Your task to perform on an android device: View the shopping cart on target. Image 0: 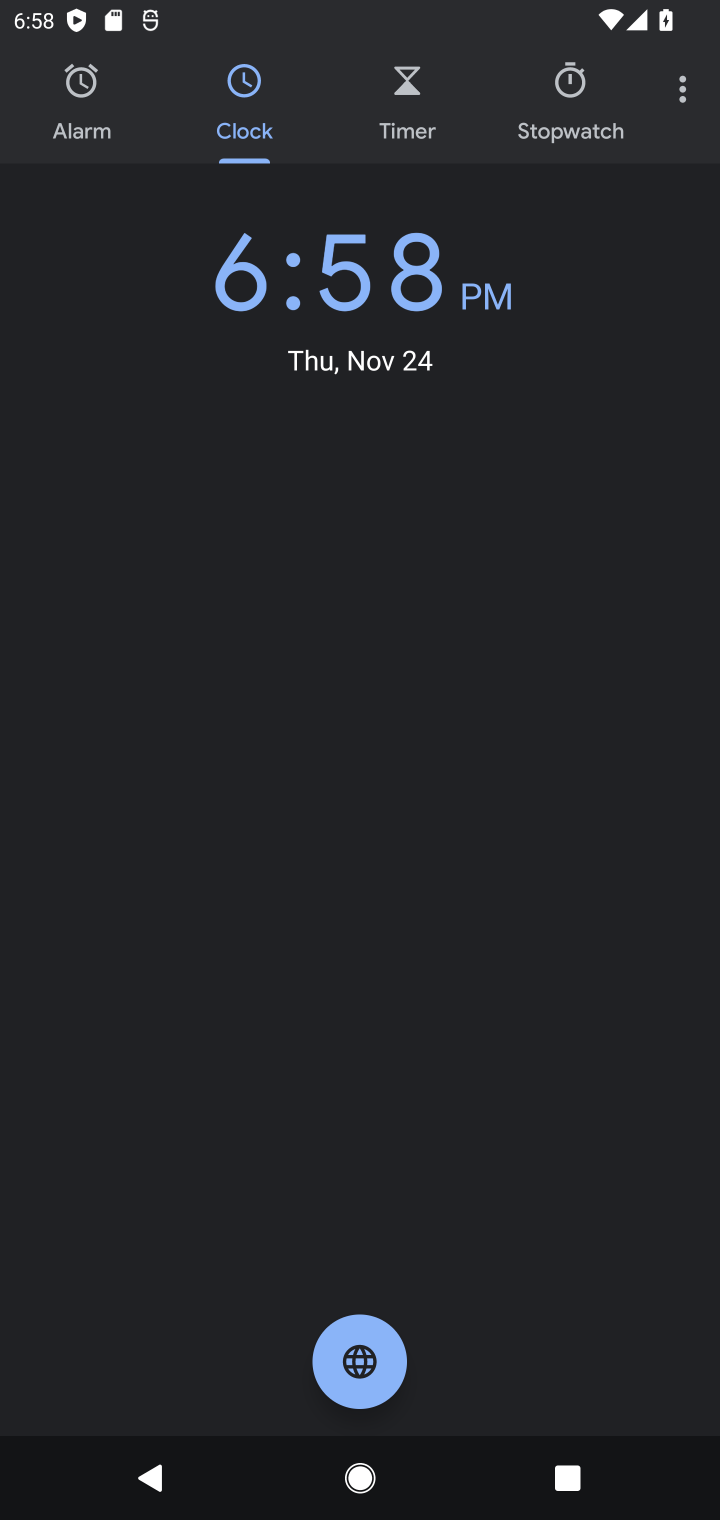
Step 0: press home button
Your task to perform on an android device: View the shopping cart on target. Image 1: 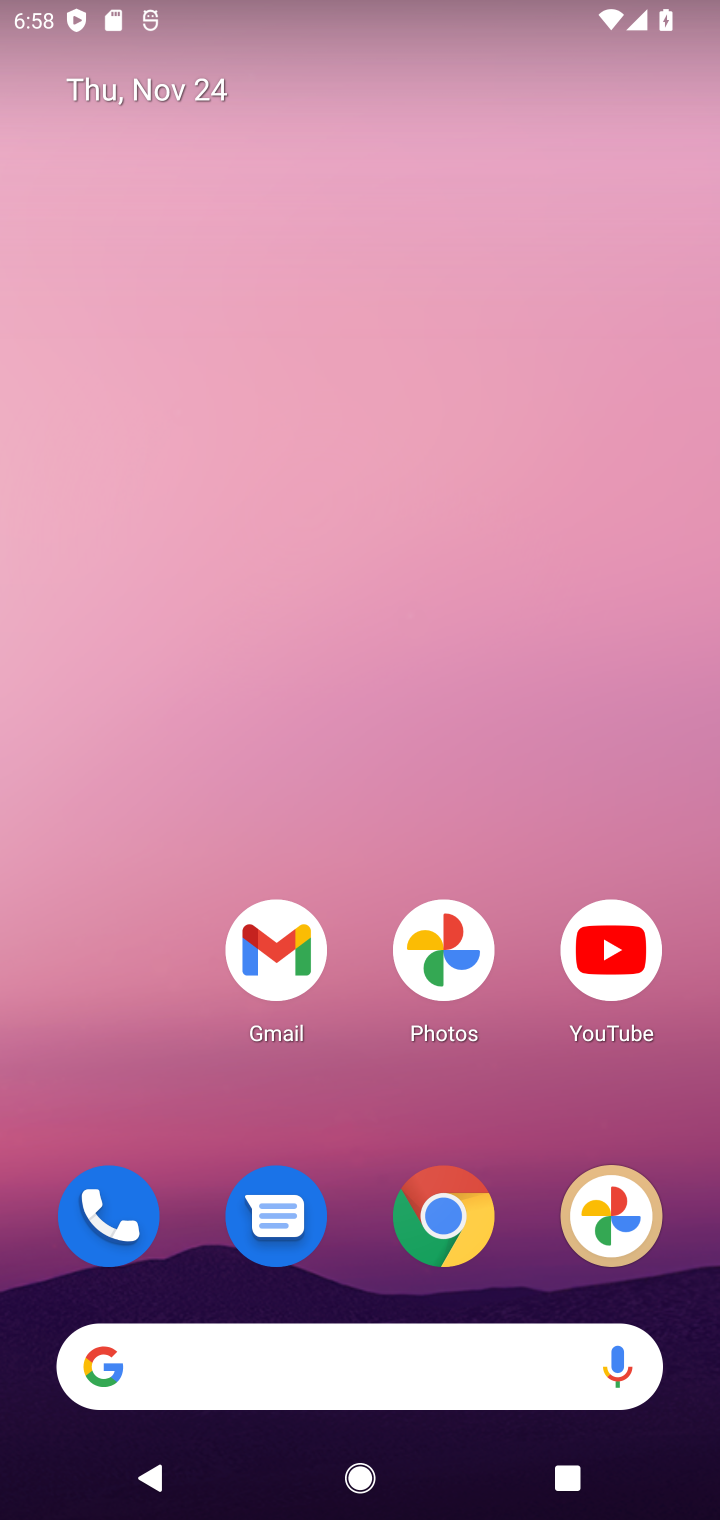
Step 1: click (440, 1224)
Your task to perform on an android device: View the shopping cart on target. Image 2: 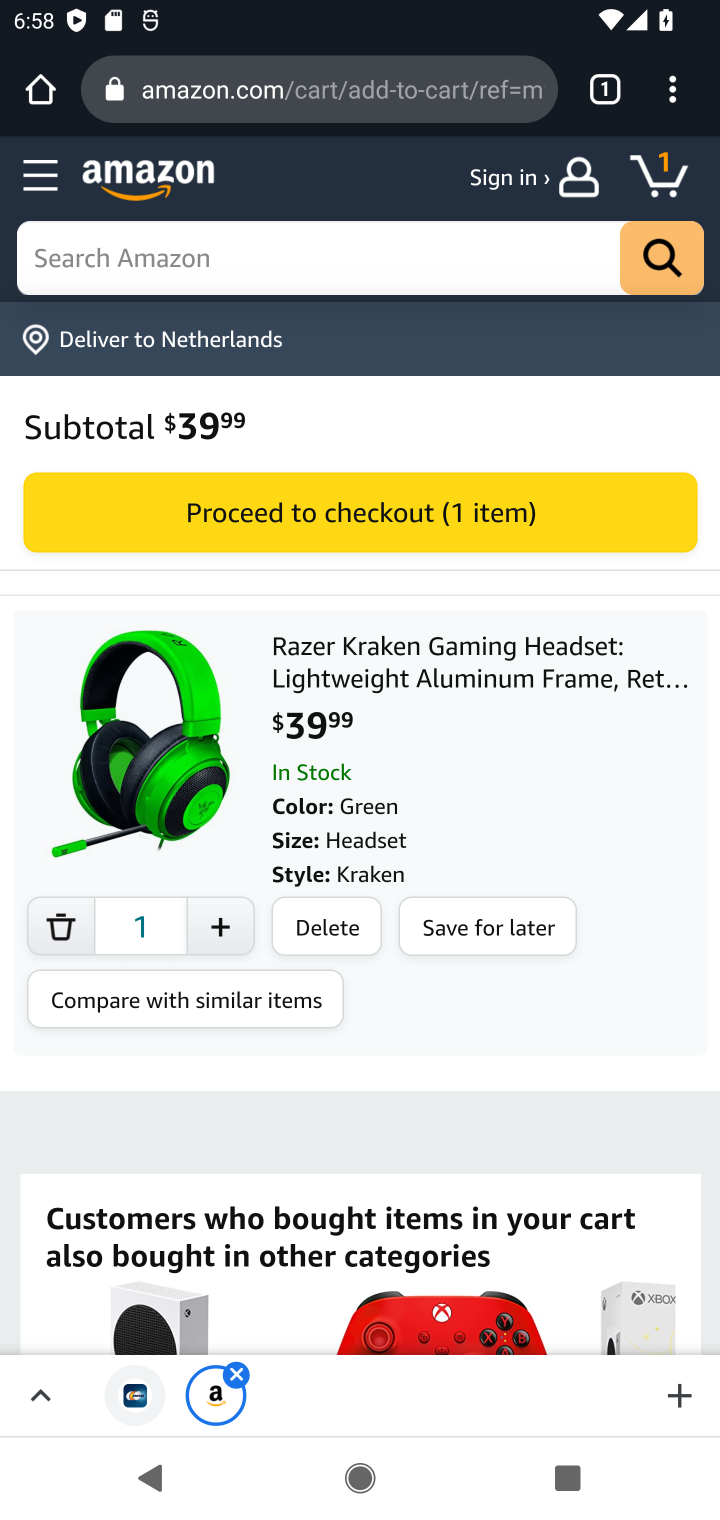
Step 2: click (356, 87)
Your task to perform on an android device: View the shopping cart on target. Image 3: 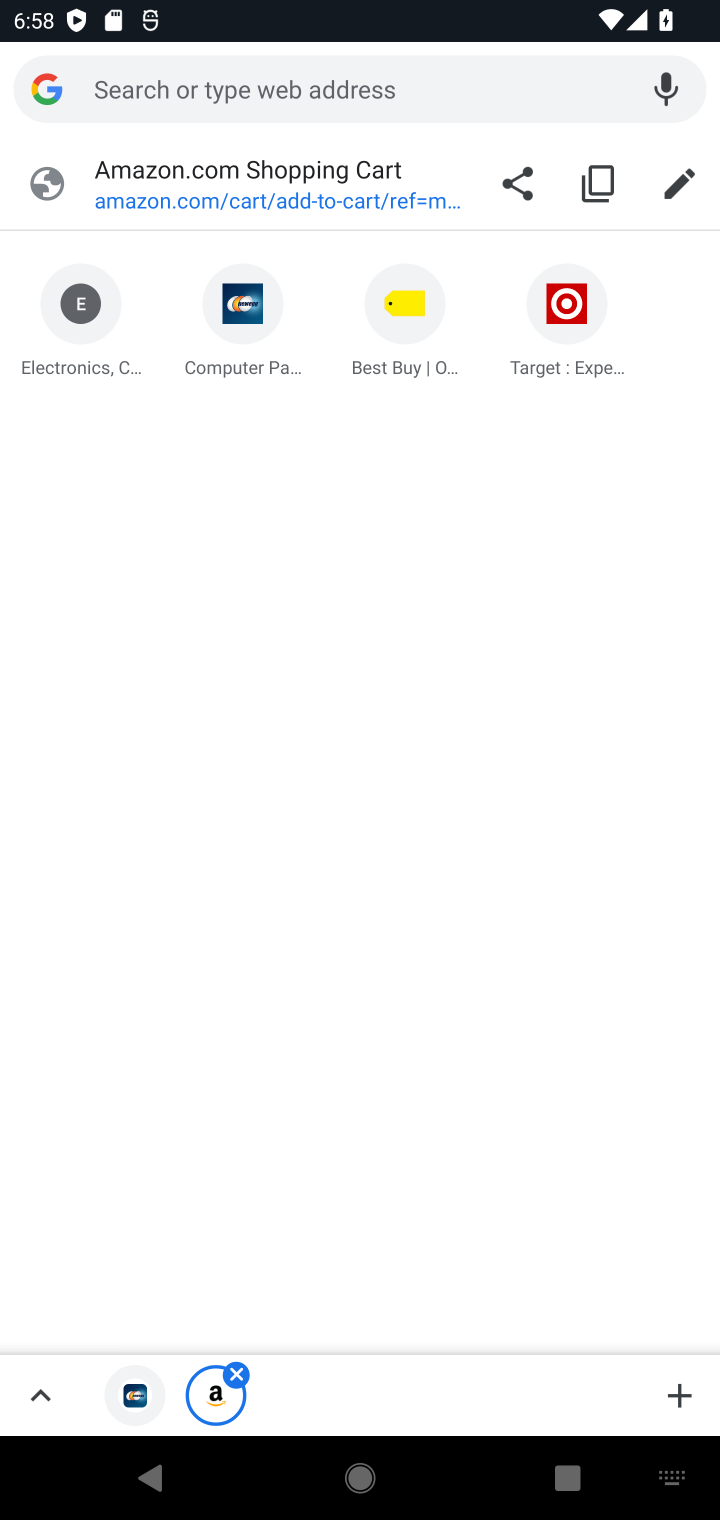
Step 3: type "target"
Your task to perform on an android device: View the shopping cart on target. Image 4: 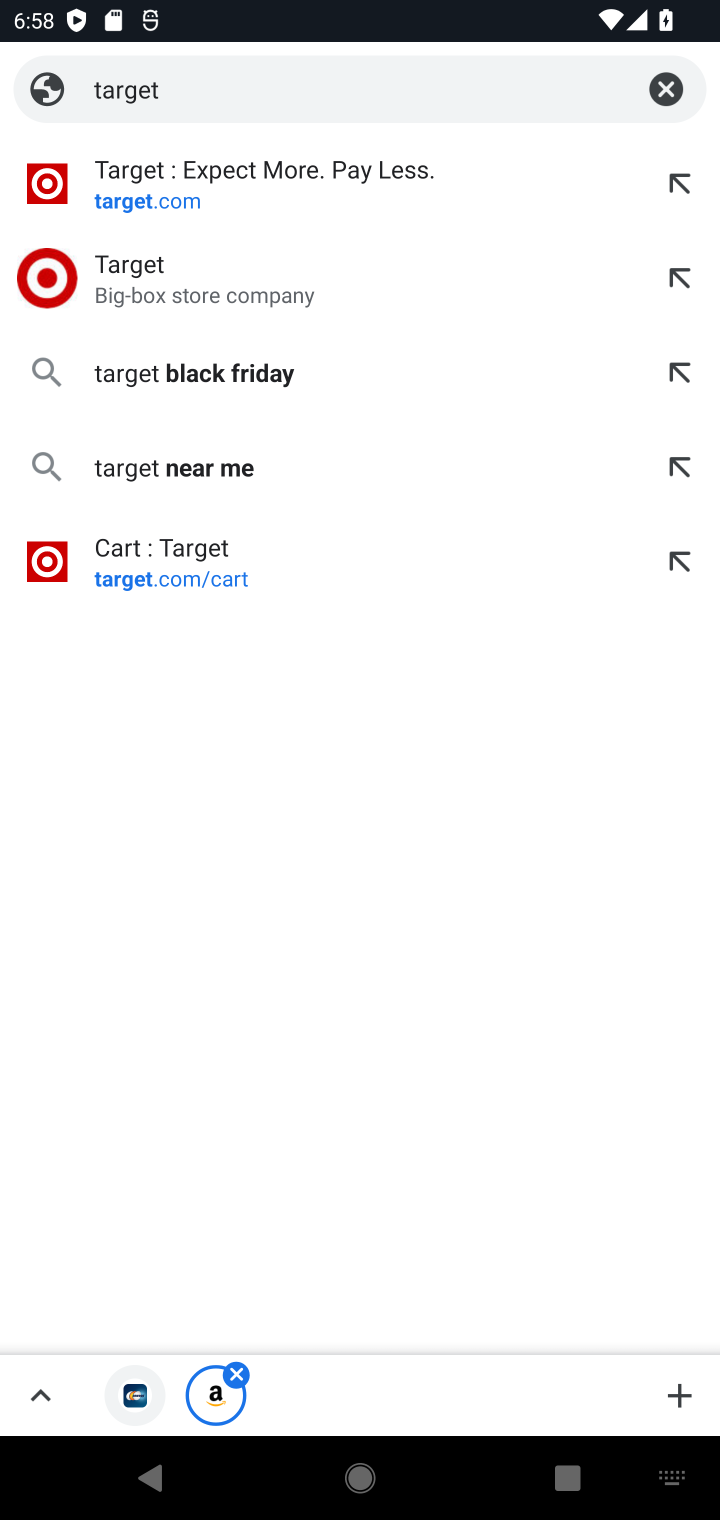
Step 4: click (178, 183)
Your task to perform on an android device: View the shopping cart on target. Image 5: 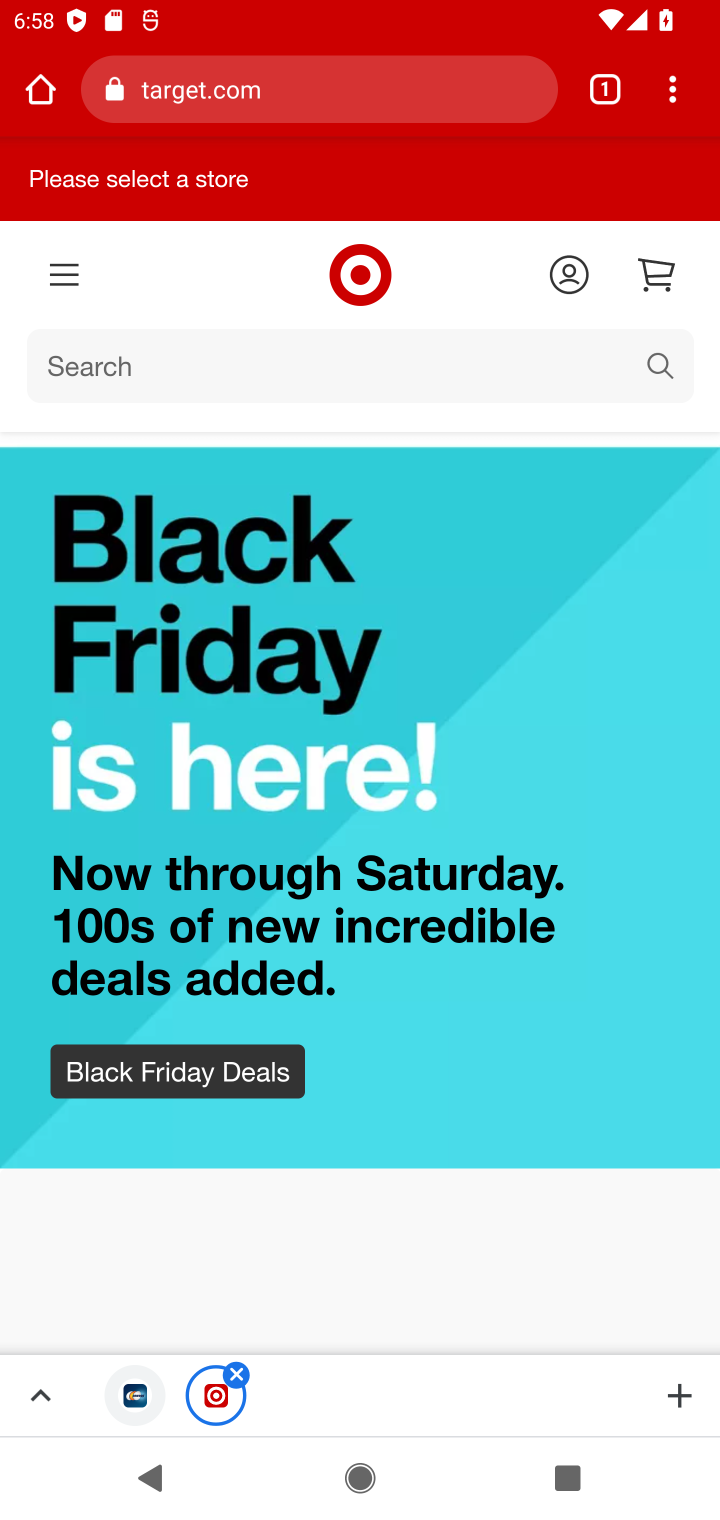
Step 5: click (657, 282)
Your task to perform on an android device: View the shopping cart on target. Image 6: 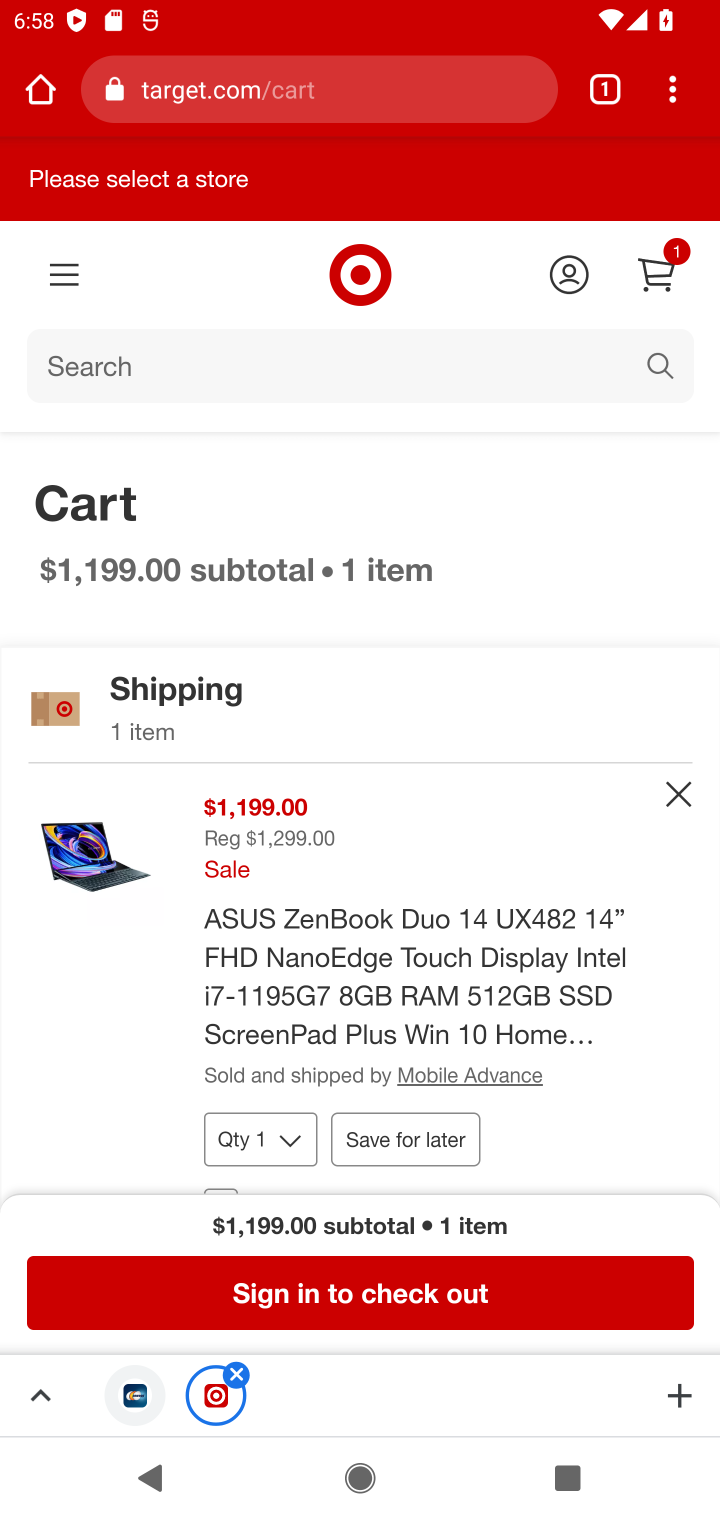
Step 6: task complete